Your task to perform on an android device: toggle translation in the chrome app Image 0: 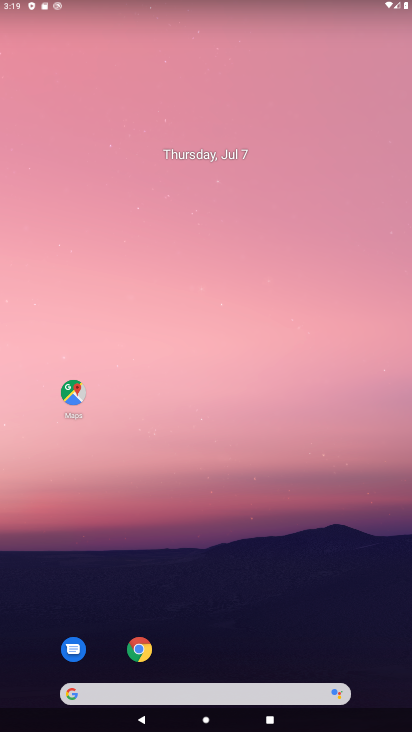
Step 0: drag from (191, 448) to (198, 75)
Your task to perform on an android device: toggle translation in the chrome app Image 1: 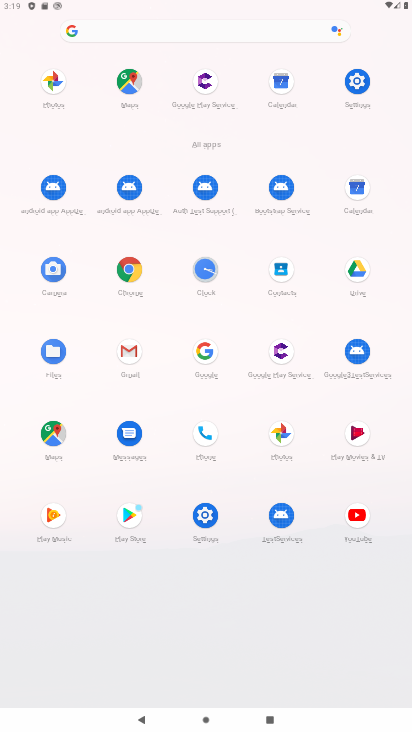
Step 1: click (122, 274)
Your task to perform on an android device: toggle translation in the chrome app Image 2: 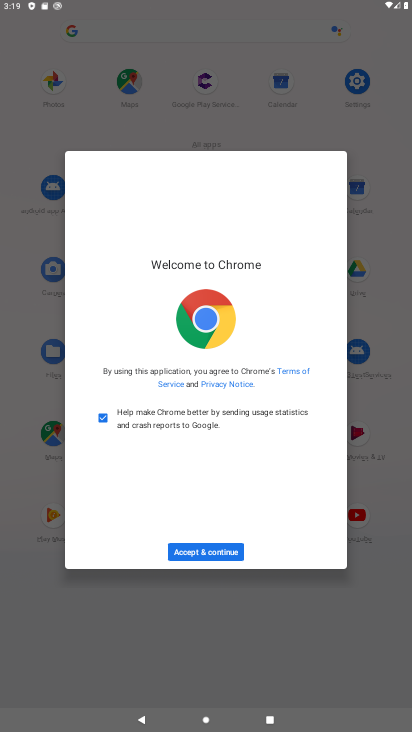
Step 2: click (192, 557)
Your task to perform on an android device: toggle translation in the chrome app Image 3: 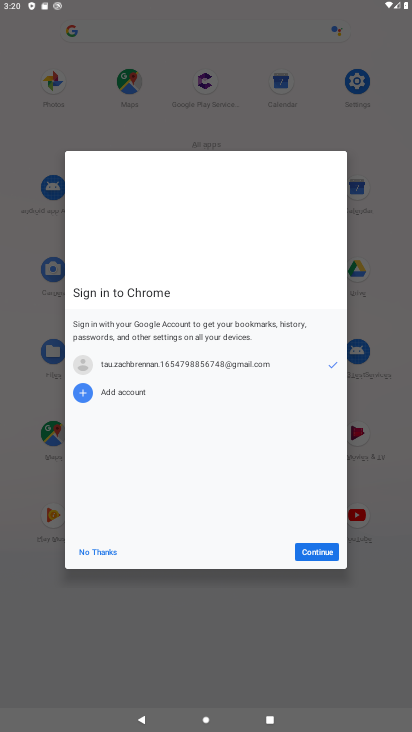
Step 3: click (91, 548)
Your task to perform on an android device: toggle translation in the chrome app Image 4: 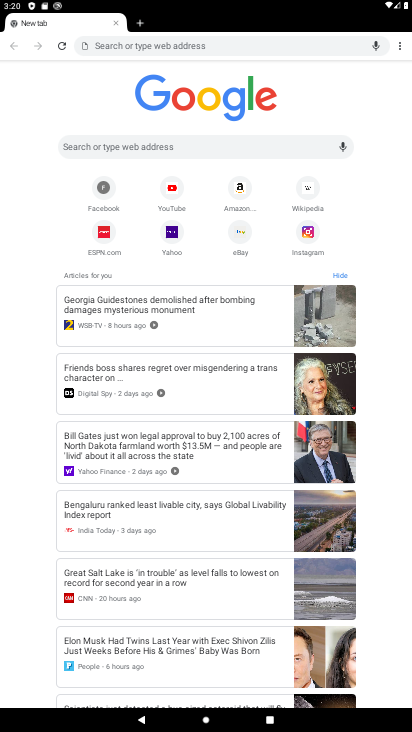
Step 4: click (399, 43)
Your task to perform on an android device: toggle translation in the chrome app Image 5: 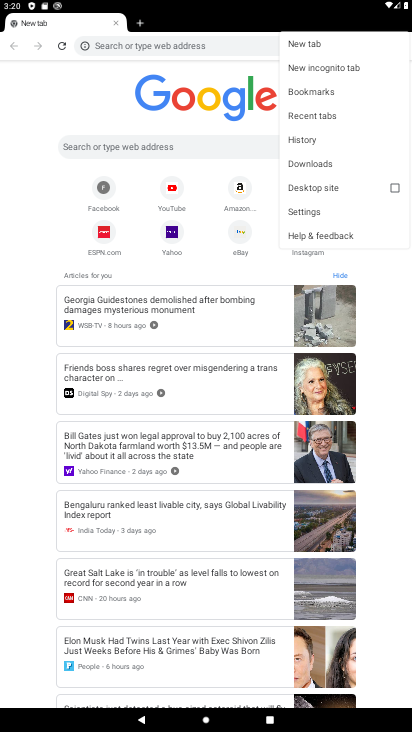
Step 5: click (320, 210)
Your task to perform on an android device: toggle translation in the chrome app Image 6: 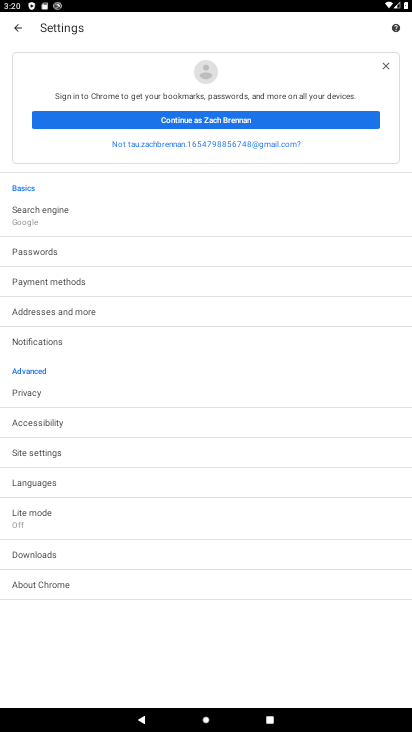
Step 6: click (81, 476)
Your task to perform on an android device: toggle translation in the chrome app Image 7: 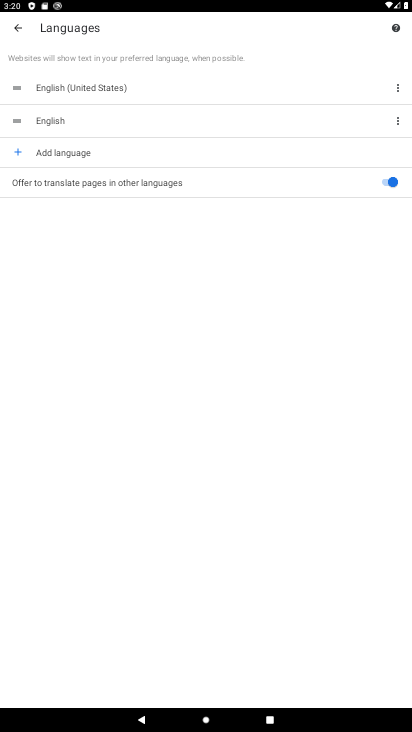
Step 7: click (376, 178)
Your task to perform on an android device: toggle translation in the chrome app Image 8: 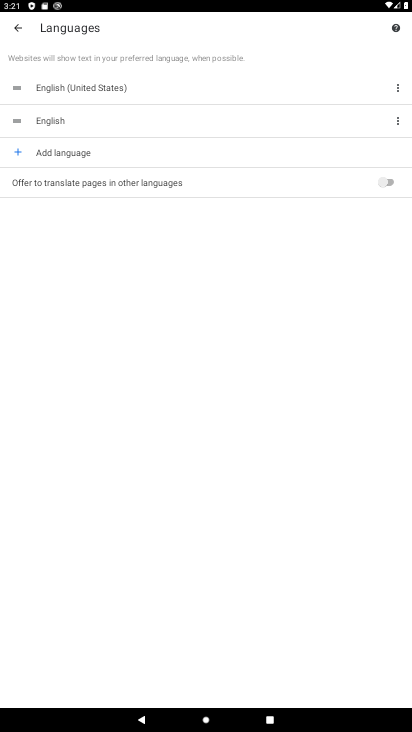
Step 8: task complete